Your task to perform on an android device: delete a single message in the gmail app Image 0: 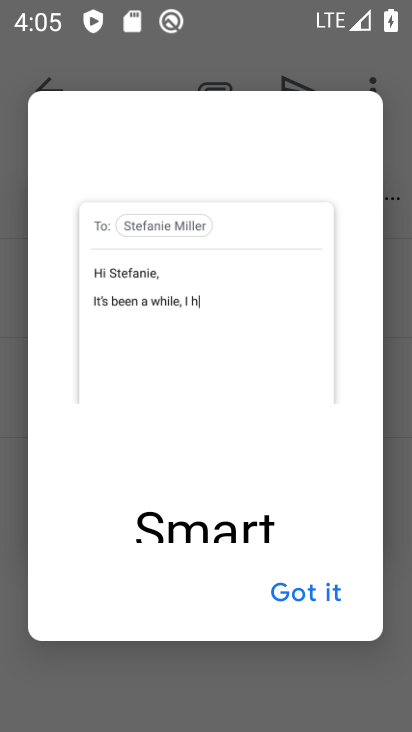
Step 0: press home button
Your task to perform on an android device: delete a single message in the gmail app Image 1: 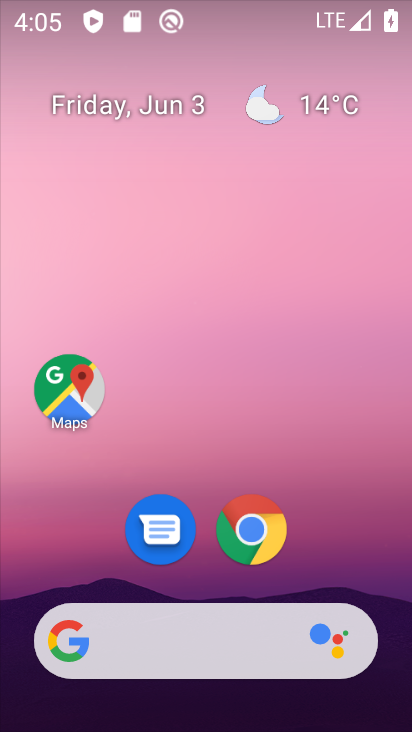
Step 1: drag from (207, 563) to (259, 59)
Your task to perform on an android device: delete a single message in the gmail app Image 2: 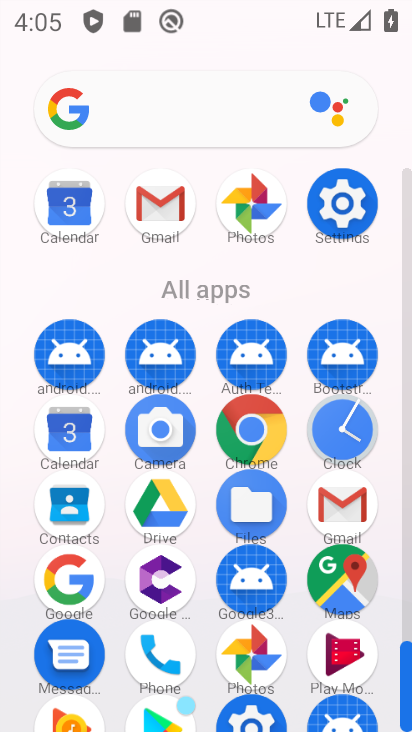
Step 2: click (158, 192)
Your task to perform on an android device: delete a single message in the gmail app Image 3: 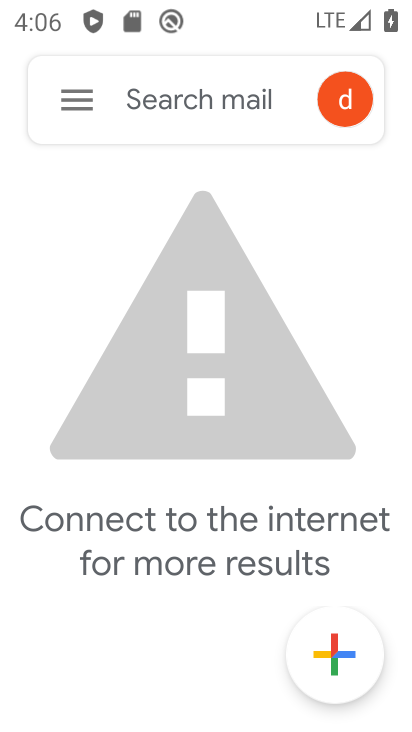
Step 3: task complete